Your task to perform on an android device: show emergency info Image 0: 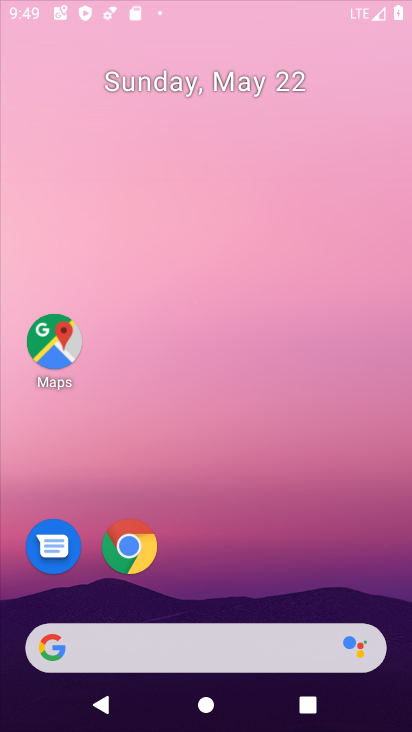
Step 0: click (249, 71)
Your task to perform on an android device: show emergency info Image 1: 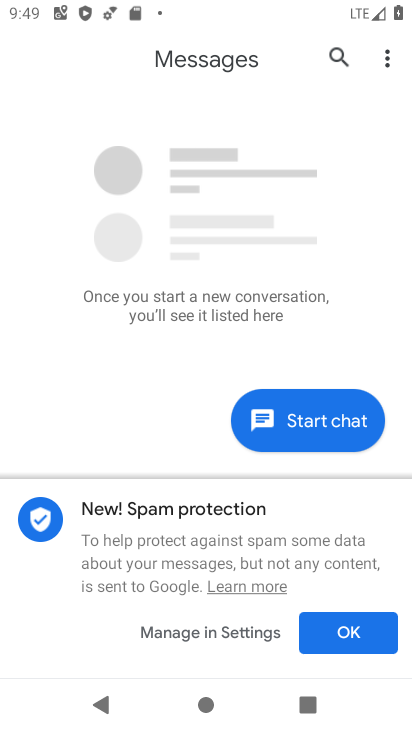
Step 1: drag from (181, 583) to (255, 14)
Your task to perform on an android device: show emergency info Image 2: 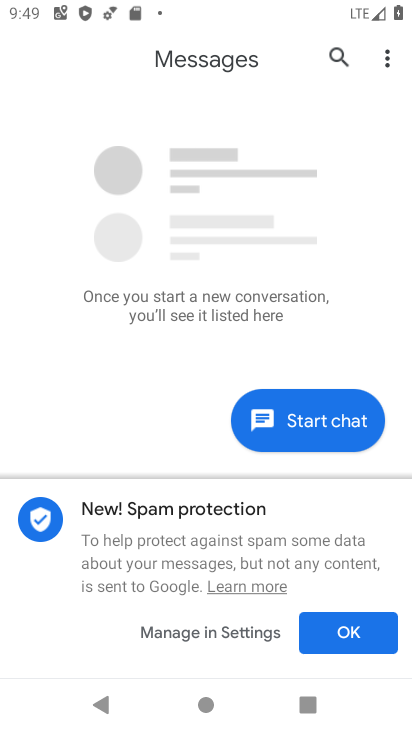
Step 2: press home button
Your task to perform on an android device: show emergency info Image 3: 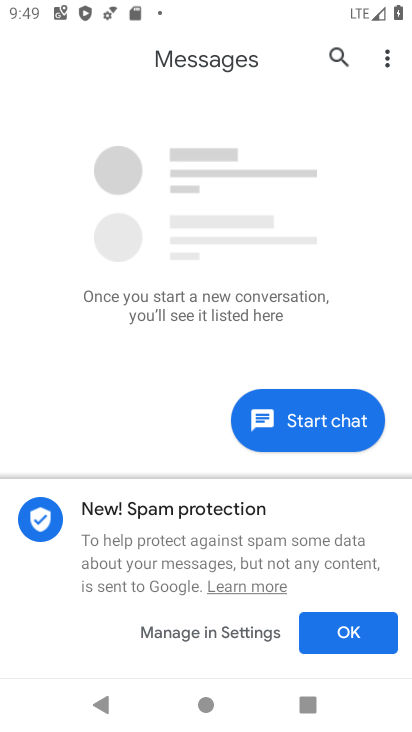
Step 3: click (406, 523)
Your task to perform on an android device: show emergency info Image 4: 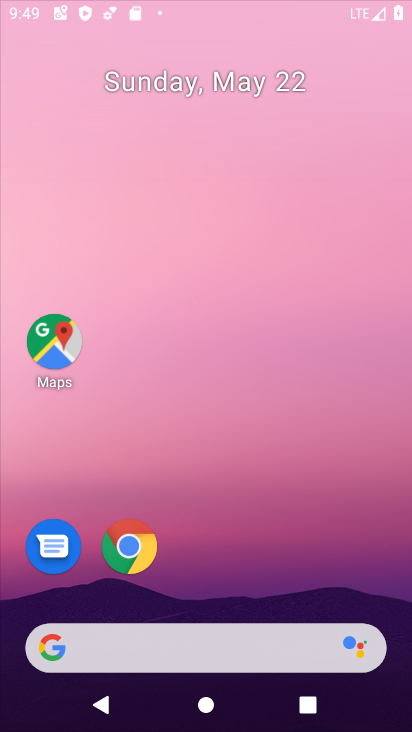
Step 4: drag from (159, 543) to (295, 23)
Your task to perform on an android device: show emergency info Image 5: 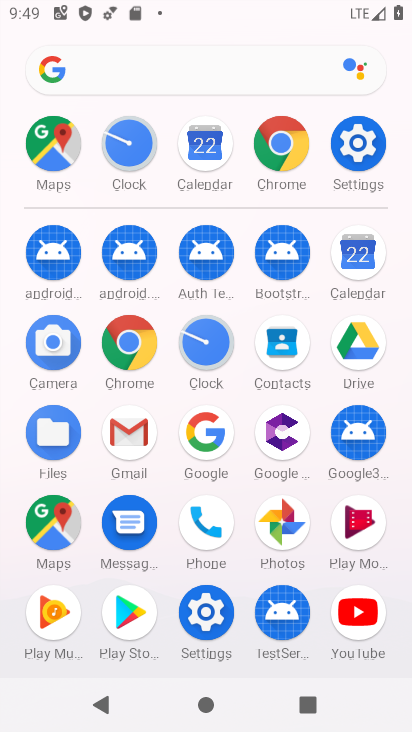
Step 5: click (349, 135)
Your task to perform on an android device: show emergency info Image 6: 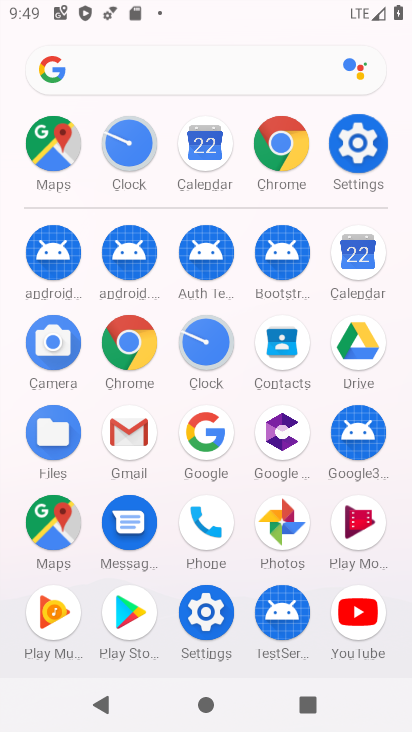
Step 6: click (349, 135)
Your task to perform on an android device: show emergency info Image 7: 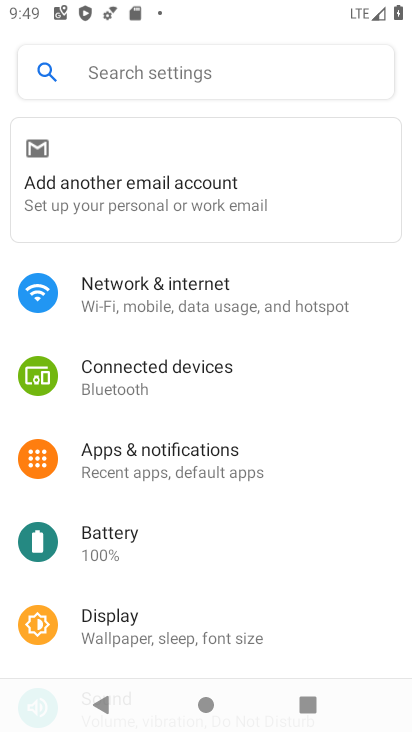
Step 7: drag from (183, 646) to (341, 26)
Your task to perform on an android device: show emergency info Image 8: 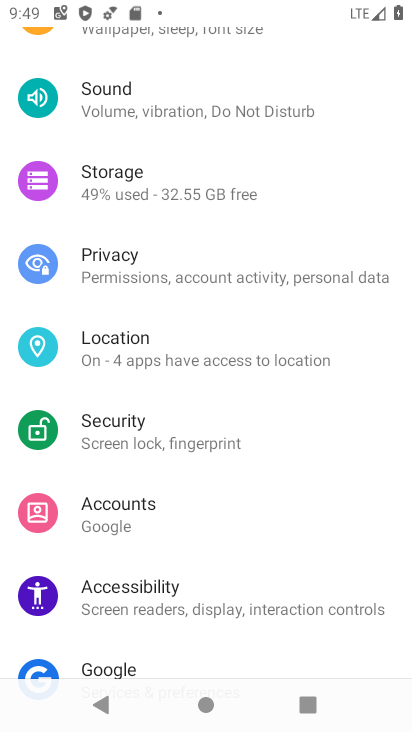
Step 8: drag from (193, 586) to (350, 83)
Your task to perform on an android device: show emergency info Image 9: 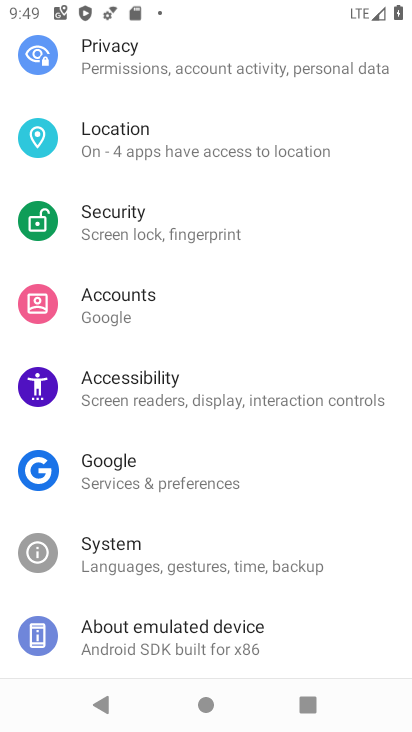
Step 9: click (189, 639)
Your task to perform on an android device: show emergency info Image 10: 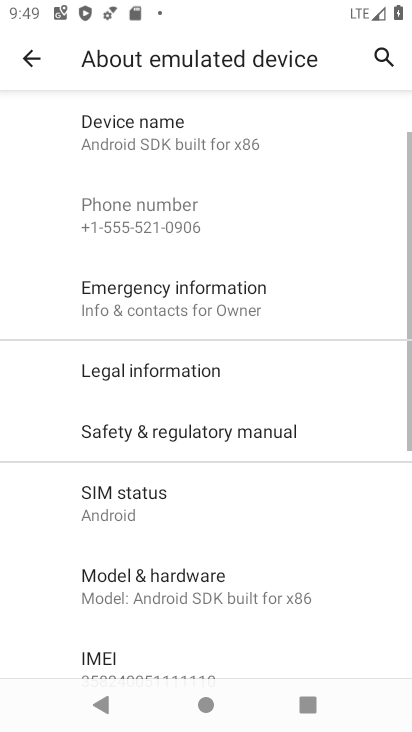
Step 10: drag from (184, 609) to (296, 162)
Your task to perform on an android device: show emergency info Image 11: 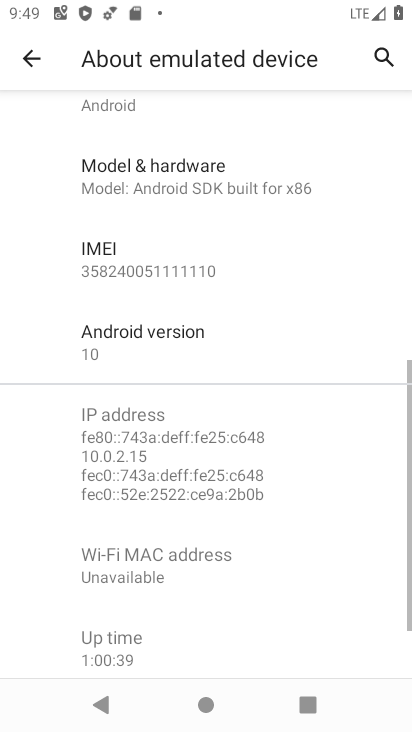
Step 11: drag from (232, 207) to (271, 713)
Your task to perform on an android device: show emergency info Image 12: 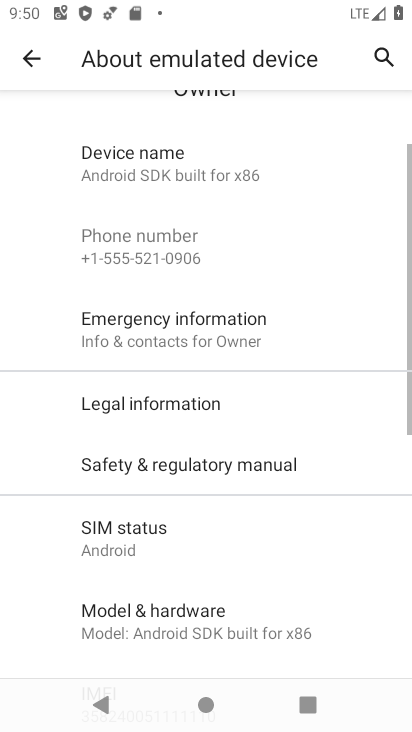
Step 12: click (171, 354)
Your task to perform on an android device: show emergency info Image 13: 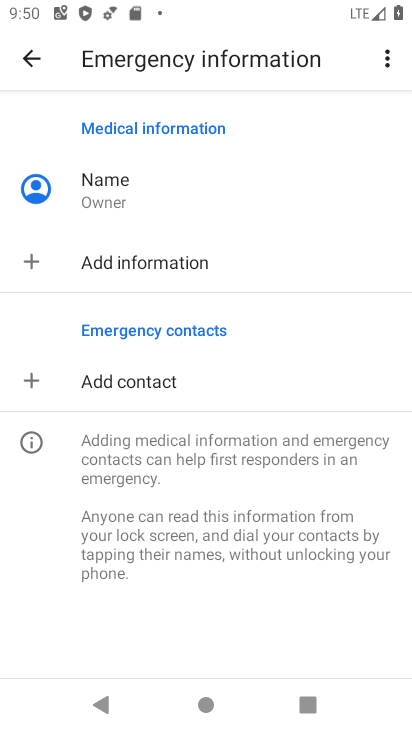
Step 13: task complete